Your task to perform on an android device: change text size in settings app Image 0: 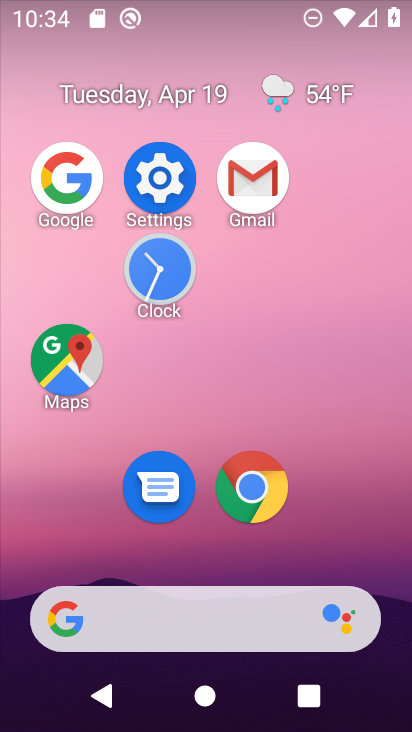
Step 0: click (173, 180)
Your task to perform on an android device: change text size in settings app Image 1: 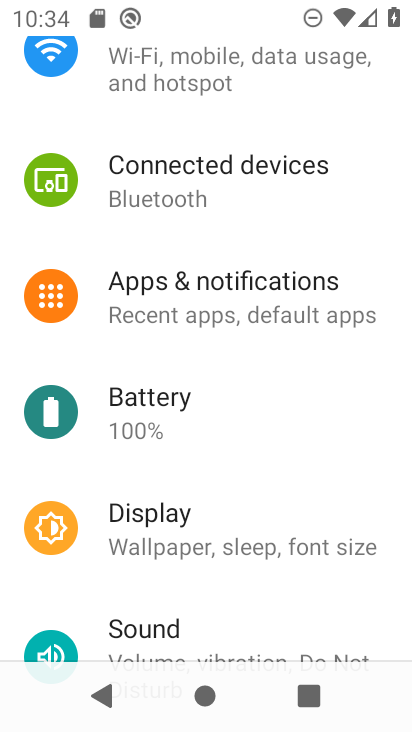
Step 1: click (230, 545)
Your task to perform on an android device: change text size in settings app Image 2: 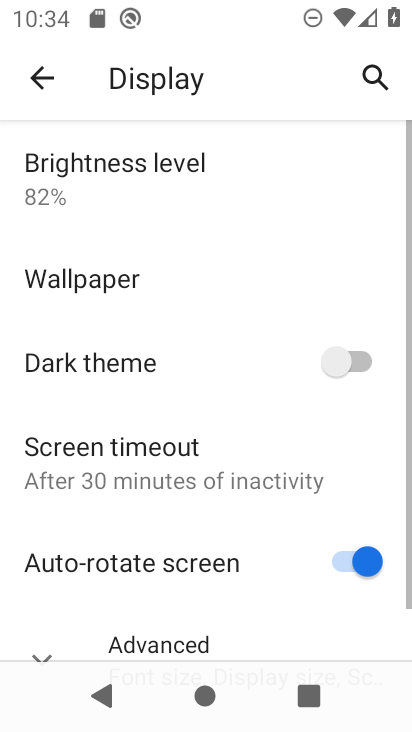
Step 2: drag from (264, 580) to (355, 182)
Your task to perform on an android device: change text size in settings app Image 3: 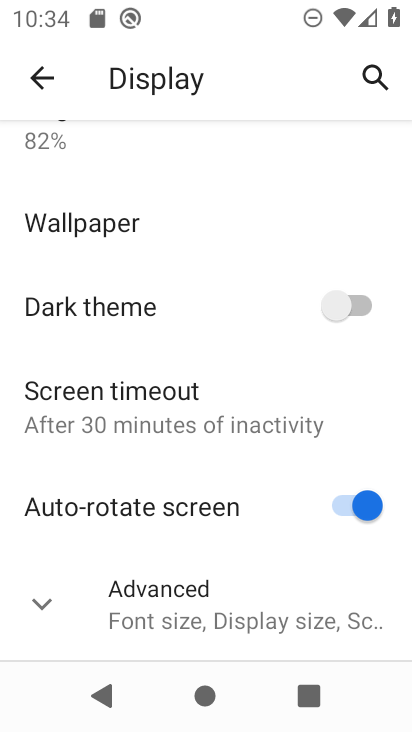
Step 3: drag from (198, 549) to (262, 157)
Your task to perform on an android device: change text size in settings app Image 4: 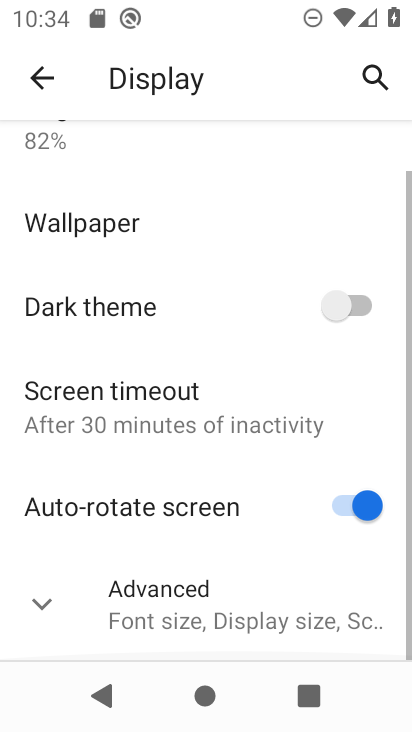
Step 4: click (142, 594)
Your task to perform on an android device: change text size in settings app Image 5: 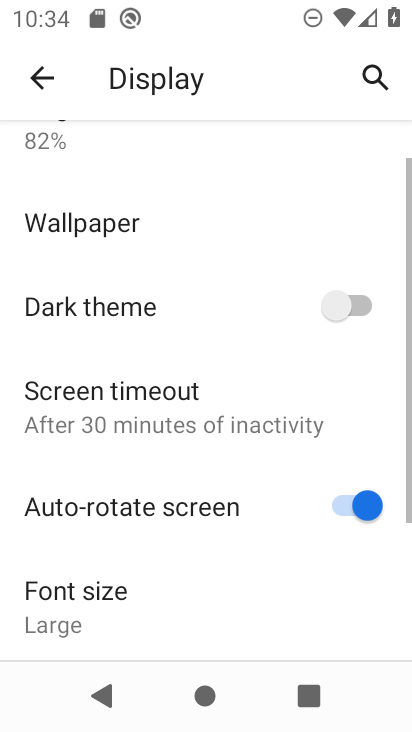
Step 5: drag from (192, 626) to (285, 202)
Your task to perform on an android device: change text size in settings app Image 6: 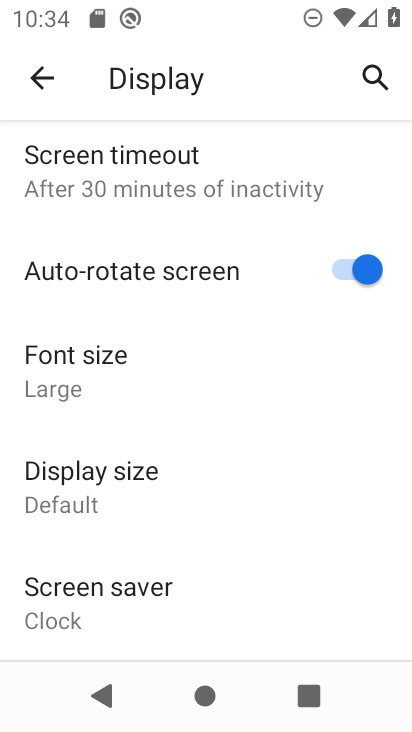
Step 6: click (95, 391)
Your task to perform on an android device: change text size in settings app Image 7: 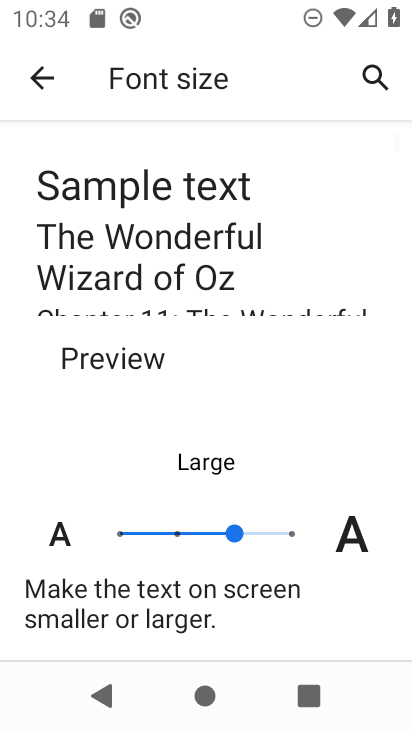
Step 7: click (171, 537)
Your task to perform on an android device: change text size in settings app Image 8: 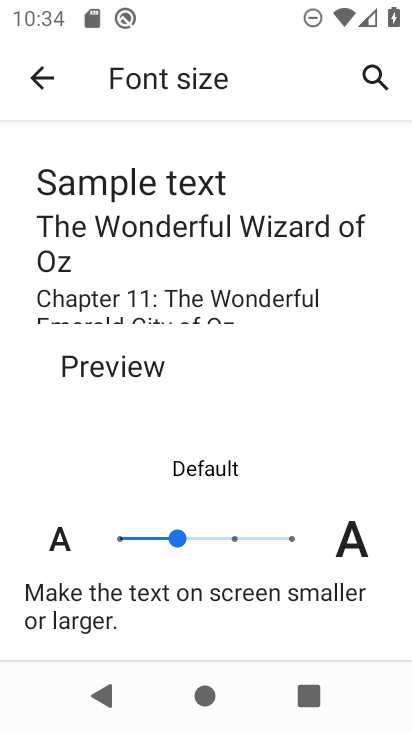
Step 8: task complete